Your task to perform on an android device: Open privacy settings Image 0: 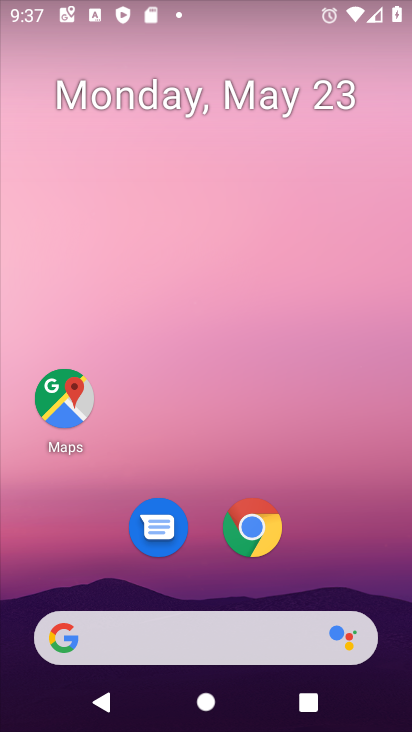
Step 0: click (265, 21)
Your task to perform on an android device: Open privacy settings Image 1: 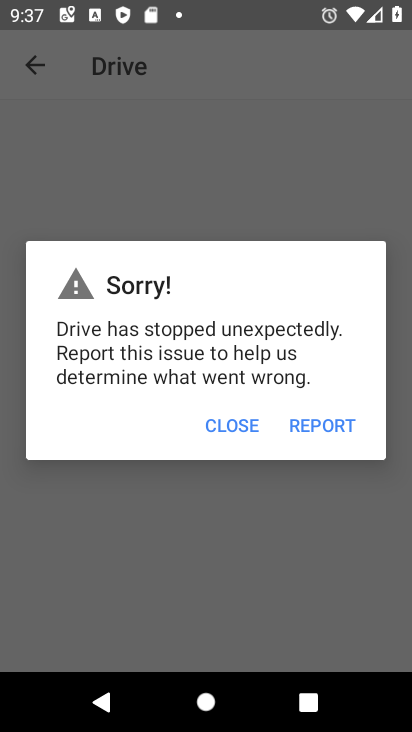
Step 1: press home button
Your task to perform on an android device: Open privacy settings Image 2: 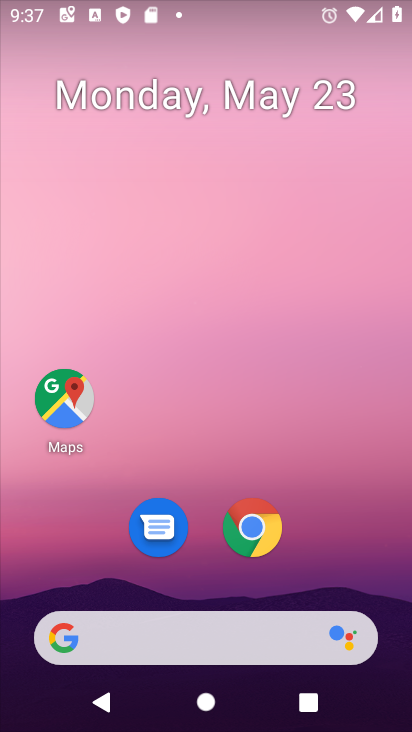
Step 2: drag from (319, 530) to (236, 46)
Your task to perform on an android device: Open privacy settings Image 3: 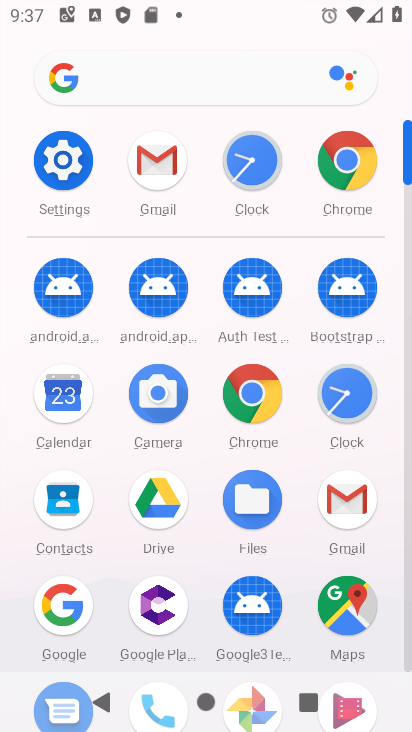
Step 3: drag from (17, 585) to (13, 231)
Your task to perform on an android device: Open privacy settings Image 4: 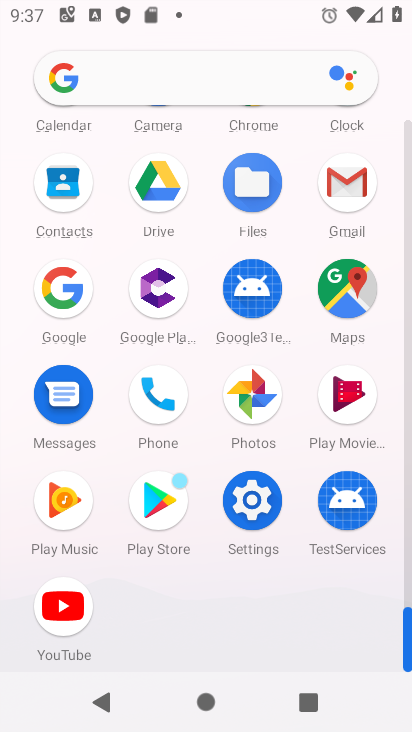
Step 4: click (251, 499)
Your task to perform on an android device: Open privacy settings Image 5: 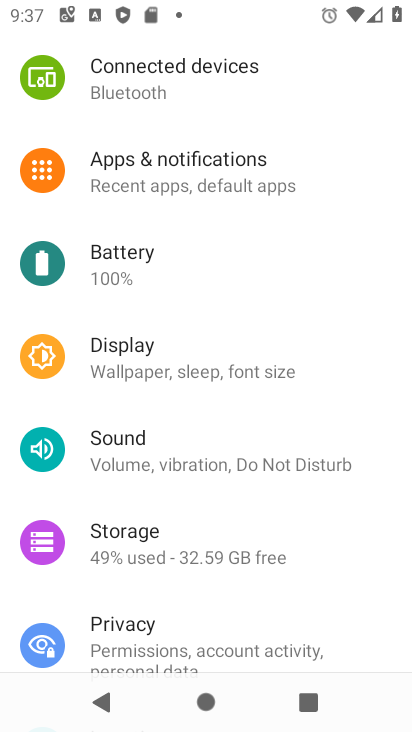
Step 5: drag from (252, 620) to (260, 149)
Your task to perform on an android device: Open privacy settings Image 6: 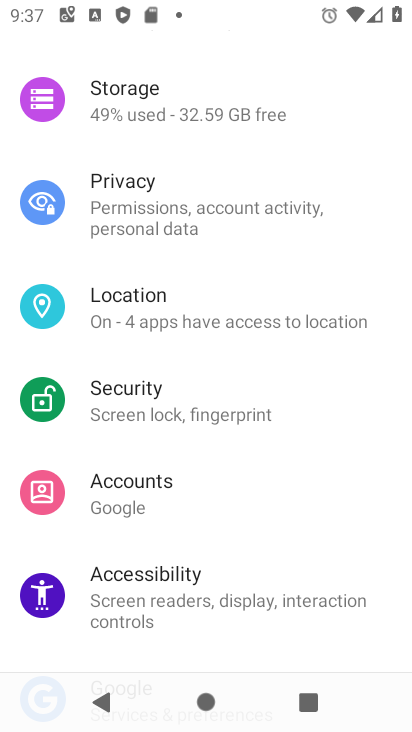
Step 6: click (179, 191)
Your task to perform on an android device: Open privacy settings Image 7: 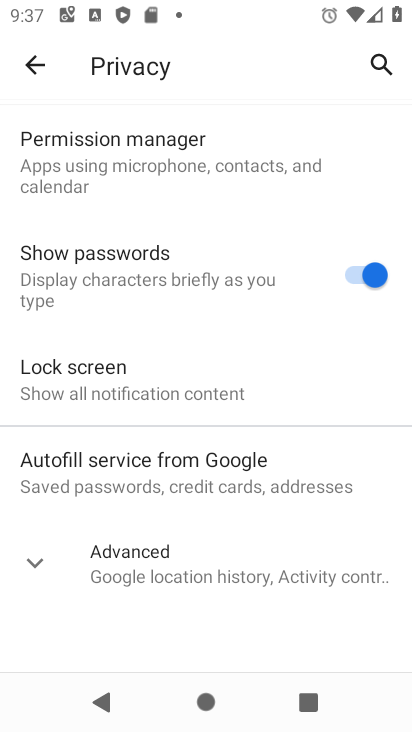
Step 7: click (49, 551)
Your task to perform on an android device: Open privacy settings Image 8: 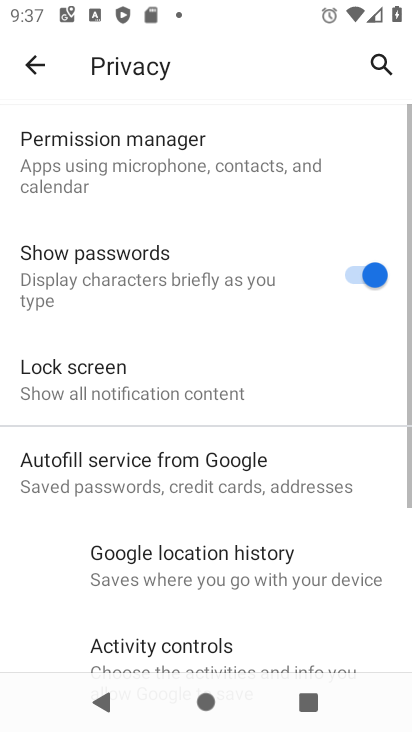
Step 8: task complete